Your task to perform on an android device: check android version Image 0: 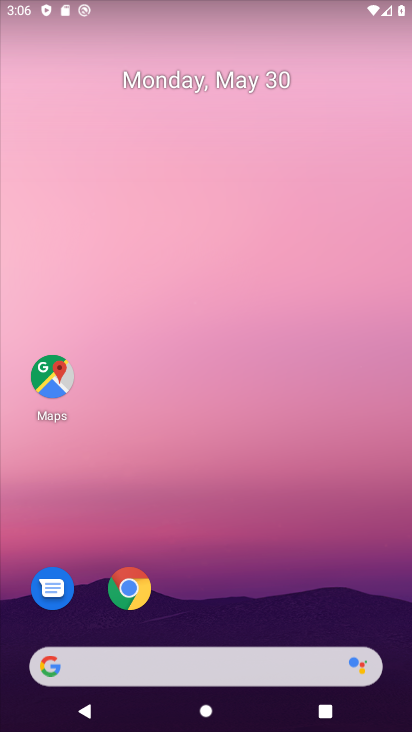
Step 0: drag from (386, 633) to (299, 38)
Your task to perform on an android device: check android version Image 1: 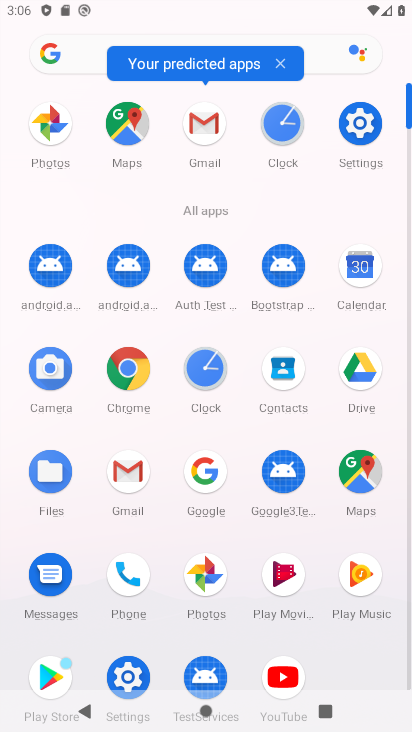
Step 1: click (409, 673)
Your task to perform on an android device: check android version Image 2: 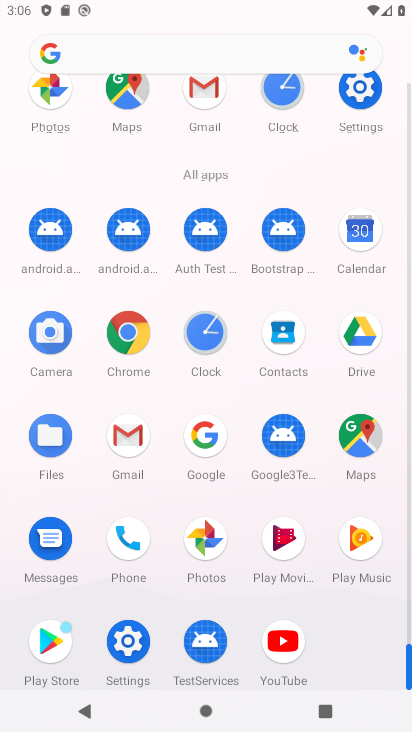
Step 2: click (127, 642)
Your task to perform on an android device: check android version Image 3: 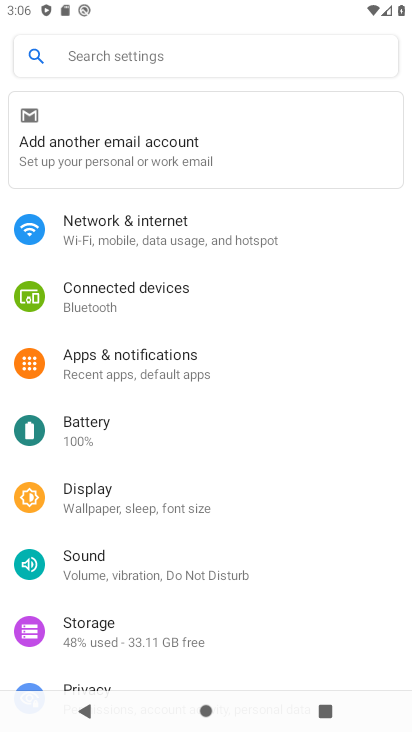
Step 3: drag from (279, 555) to (258, 130)
Your task to perform on an android device: check android version Image 4: 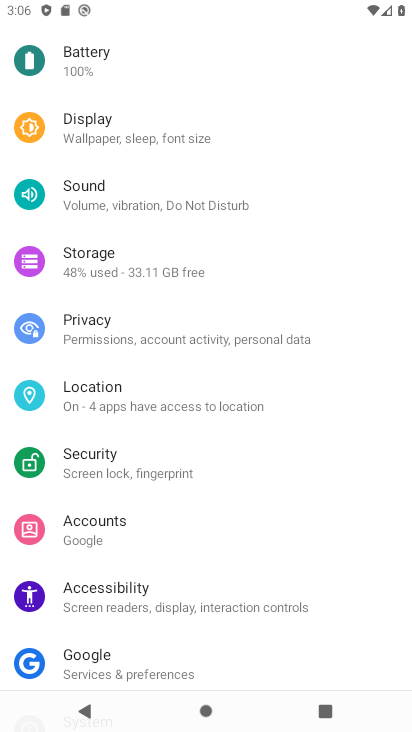
Step 4: drag from (289, 621) to (287, 127)
Your task to perform on an android device: check android version Image 5: 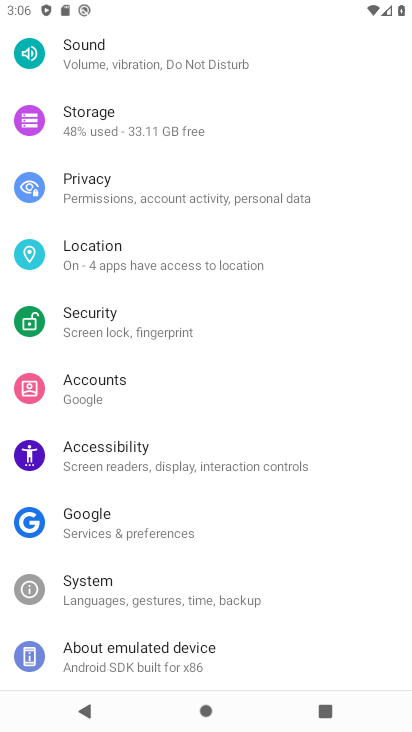
Step 5: click (158, 646)
Your task to perform on an android device: check android version Image 6: 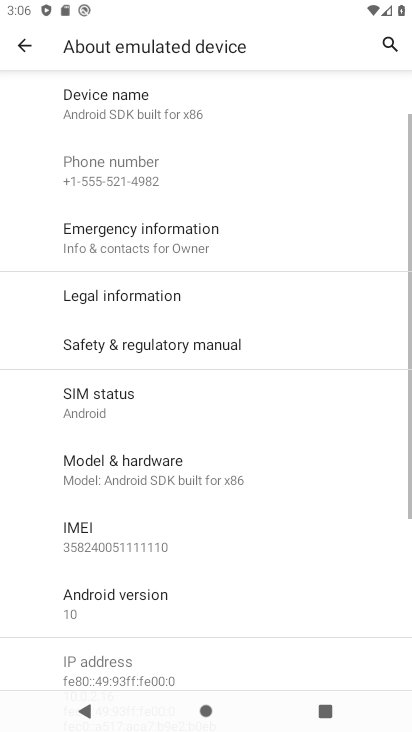
Step 6: drag from (253, 625) to (250, 334)
Your task to perform on an android device: check android version Image 7: 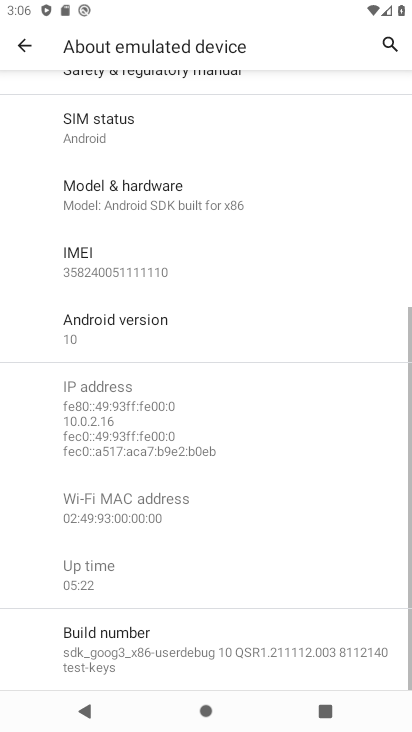
Step 7: click (76, 313)
Your task to perform on an android device: check android version Image 8: 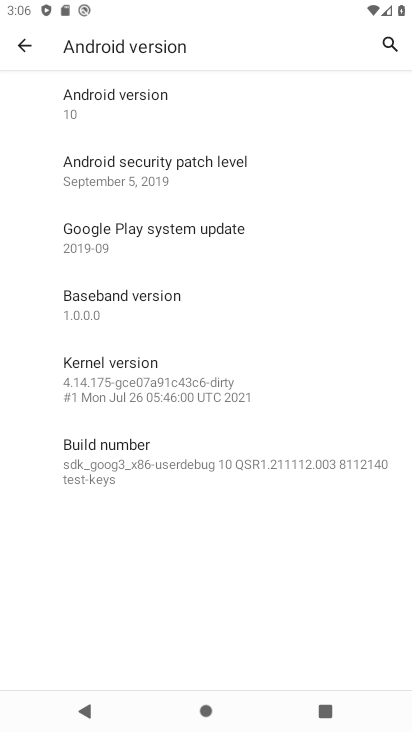
Step 8: task complete